Your task to perform on an android device: Search for Italian restaurants on Maps Image 0: 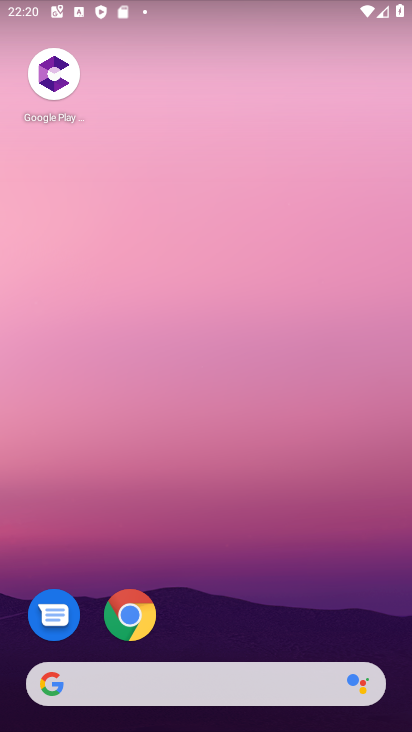
Step 0: drag from (178, 462) to (321, 519)
Your task to perform on an android device: Search for Italian restaurants on Maps Image 1: 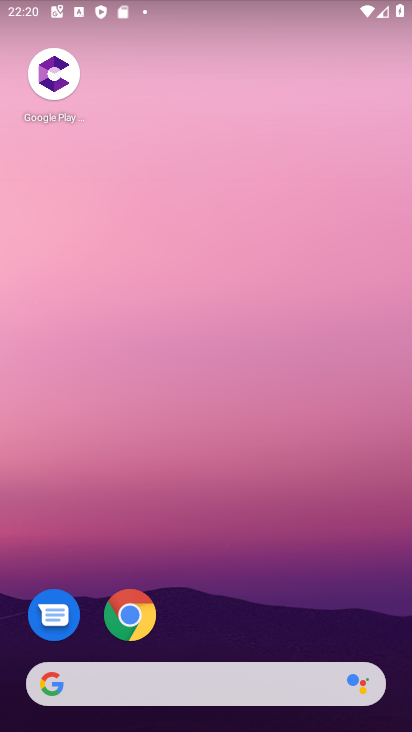
Step 1: drag from (374, 406) to (67, 397)
Your task to perform on an android device: Search for Italian restaurants on Maps Image 2: 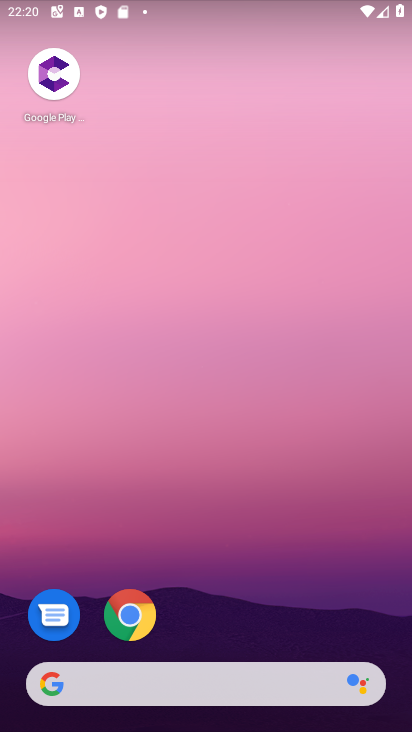
Step 2: drag from (391, 712) to (397, 218)
Your task to perform on an android device: Search for Italian restaurants on Maps Image 3: 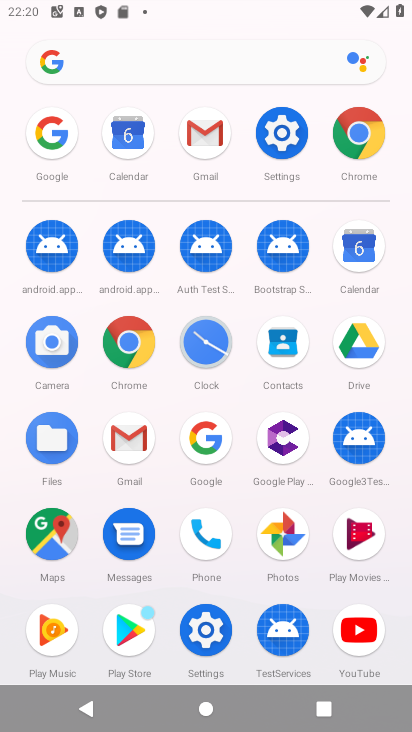
Step 3: click (53, 525)
Your task to perform on an android device: Search for Italian restaurants on Maps Image 4: 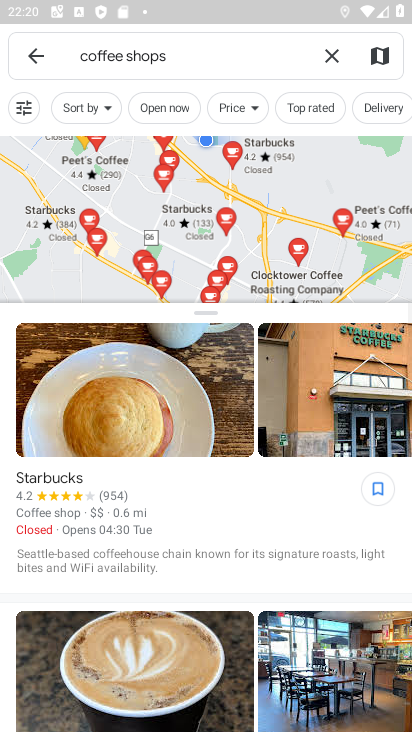
Step 4: click (333, 47)
Your task to perform on an android device: Search for Italian restaurants on Maps Image 5: 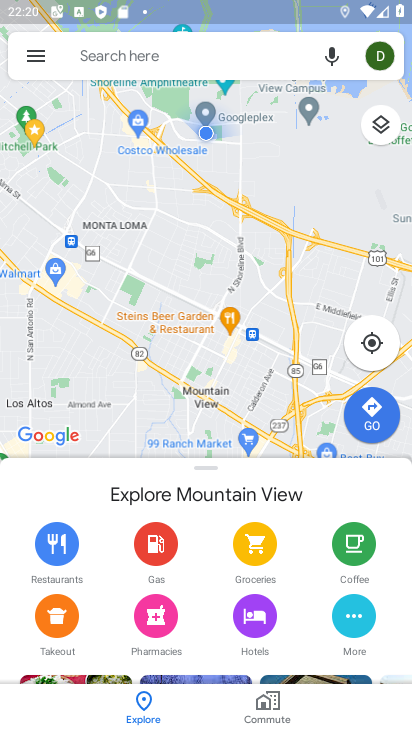
Step 5: click (85, 54)
Your task to perform on an android device: Search for Italian restaurants on Maps Image 6: 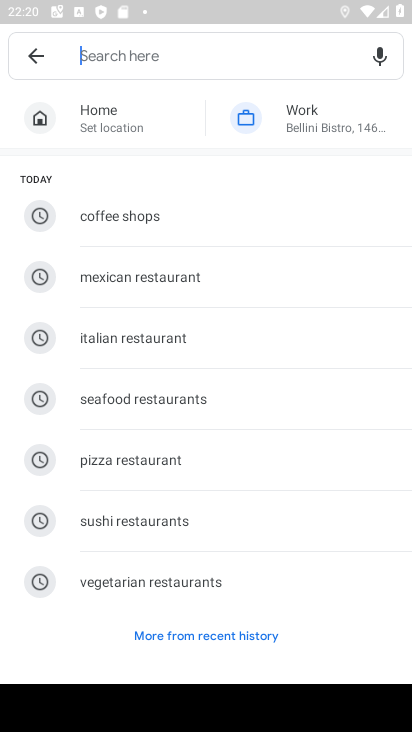
Step 6: type "Italian restaurants"
Your task to perform on an android device: Search for Italian restaurants on Maps Image 7: 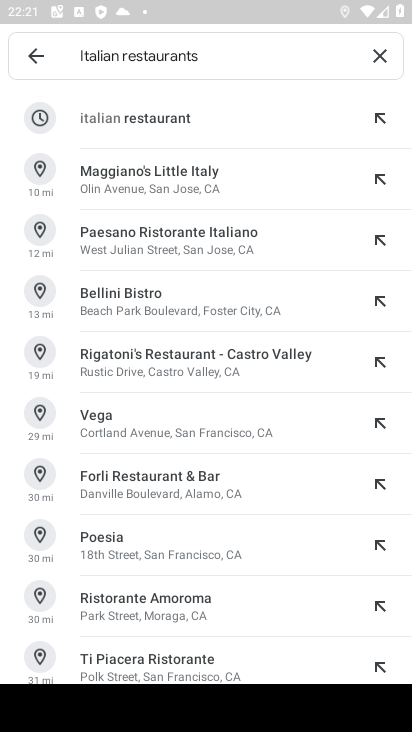
Step 7: click (182, 117)
Your task to perform on an android device: Search for Italian restaurants on Maps Image 8: 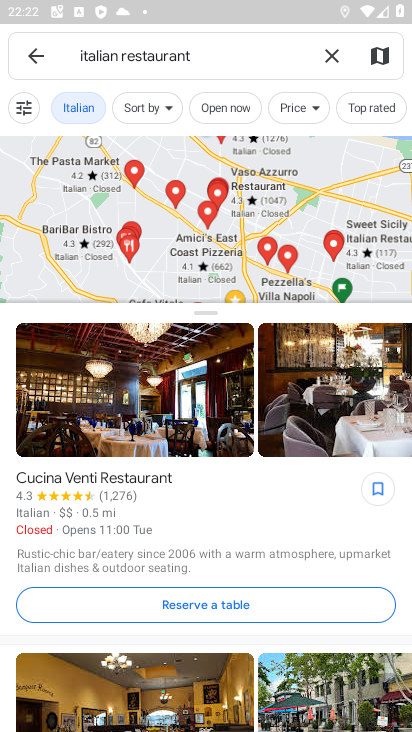
Step 8: task complete